Your task to perform on an android device: set default search engine in the chrome app Image 0: 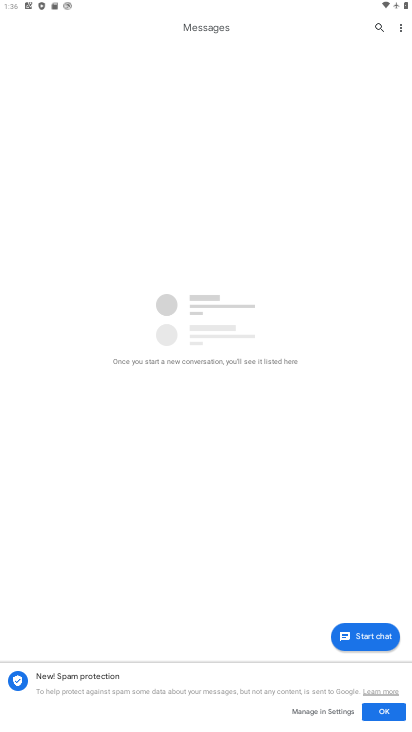
Step 0: press home button
Your task to perform on an android device: set default search engine in the chrome app Image 1: 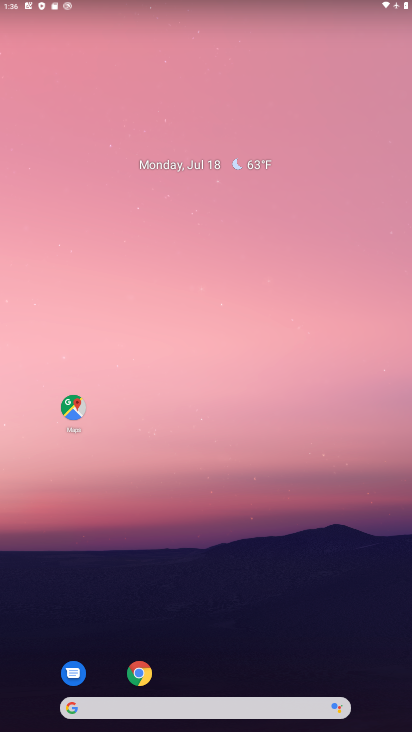
Step 1: drag from (211, 614) to (231, 399)
Your task to perform on an android device: set default search engine in the chrome app Image 2: 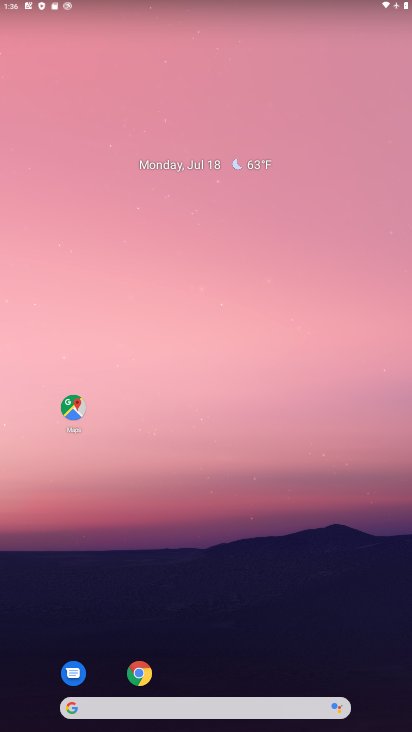
Step 2: drag from (214, 678) to (205, 253)
Your task to perform on an android device: set default search engine in the chrome app Image 3: 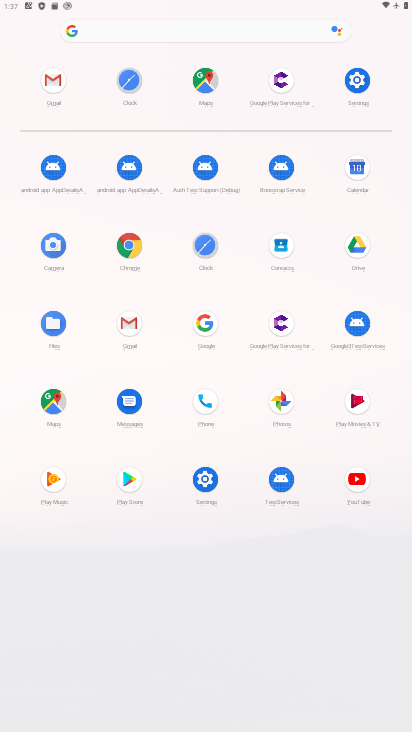
Step 3: click (129, 248)
Your task to perform on an android device: set default search engine in the chrome app Image 4: 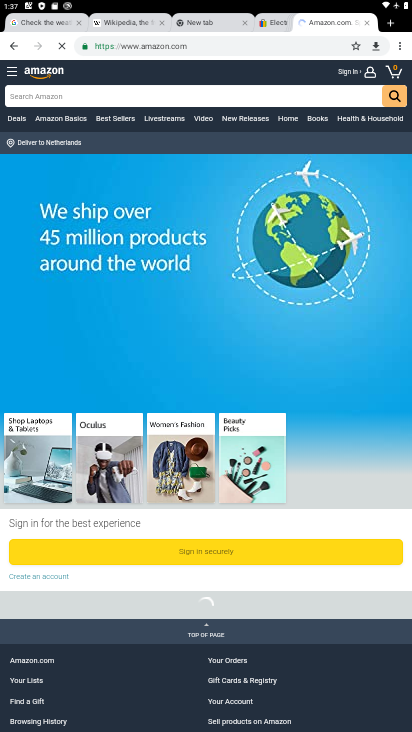
Step 4: click (406, 40)
Your task to perform on an android device: set default search engine in the chrome app Image 5: 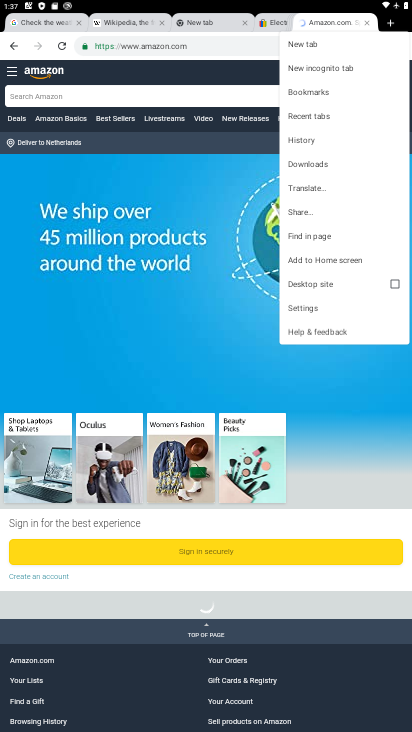
Step 5: click (307, 310)
Your task to perform on an android device: set default search engine in the chrome app Image 6: 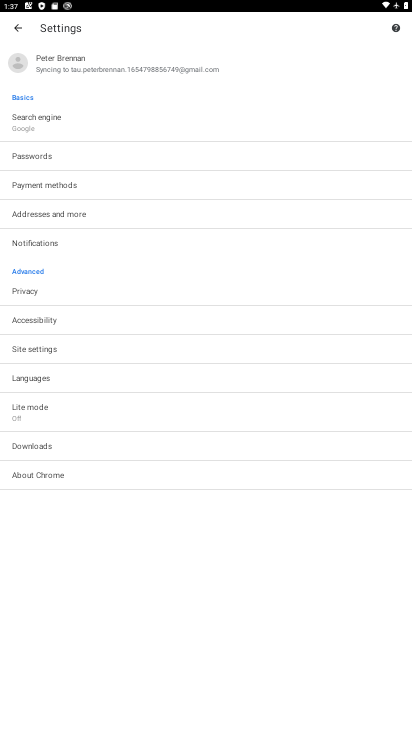
Step 6: click (53, 115)
Your task to perform on an android device: set default search engine in the chrome app Image 7: 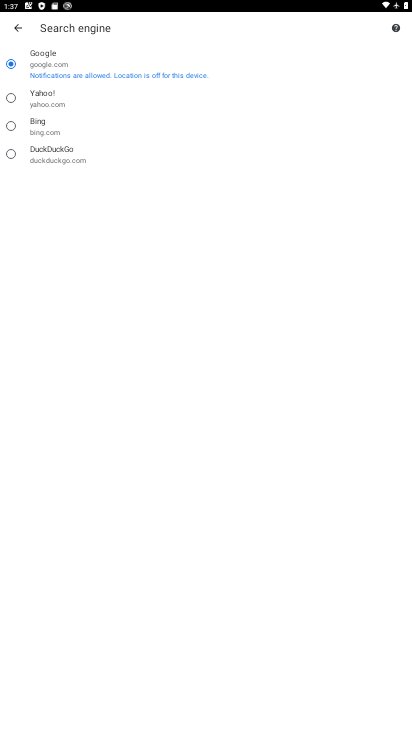
Step 7: click (47, 112)
Your task to perform on an android device: set default search engine in the chrome app Image 8: 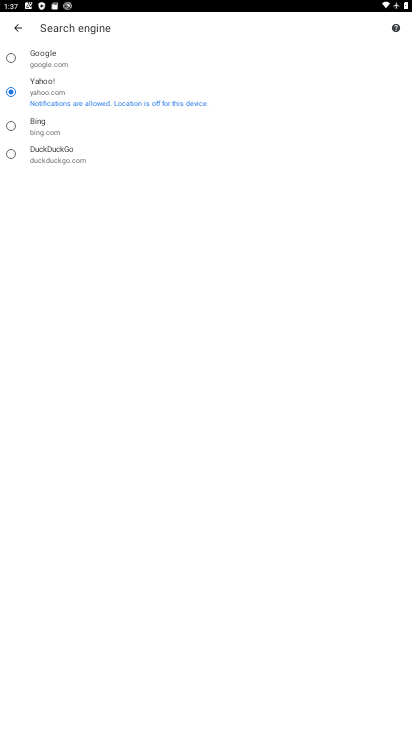
Step 8: task complete